Your task to perform on an android device: Search for vegetarian restaurants on Maps Image 0: 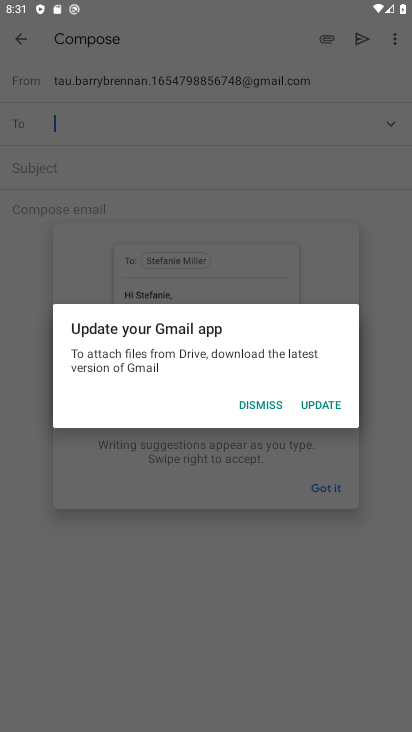
Step 0: press home button
Your task to perform on an android device: Search for vegetarian restaurants on Maps Image 1: 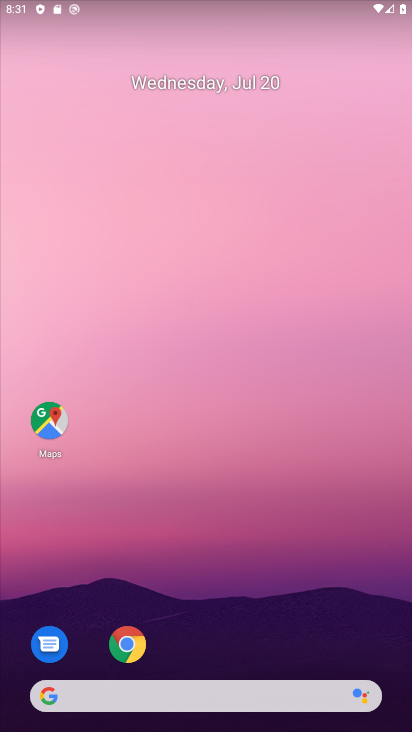
Step 1: drag from (318, 612) to (302, 382)
Your task to perform on an android device: Search for vegetarian restaurants on Maps Image 2: 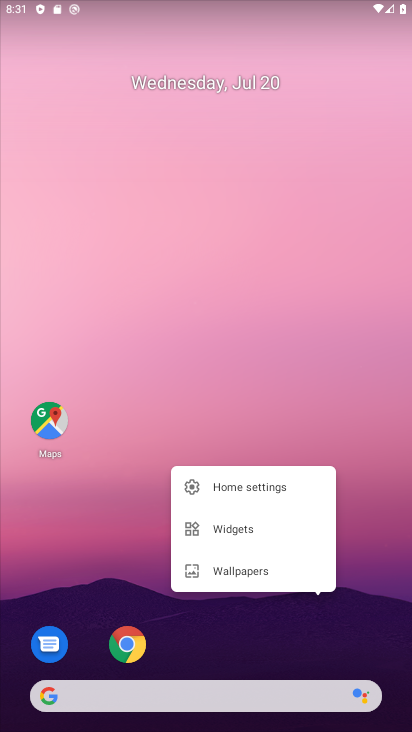
Step 2: click (302, 382)
Your task to perform on an android device: Search for vegetarian restaurants on Maps Image 3: 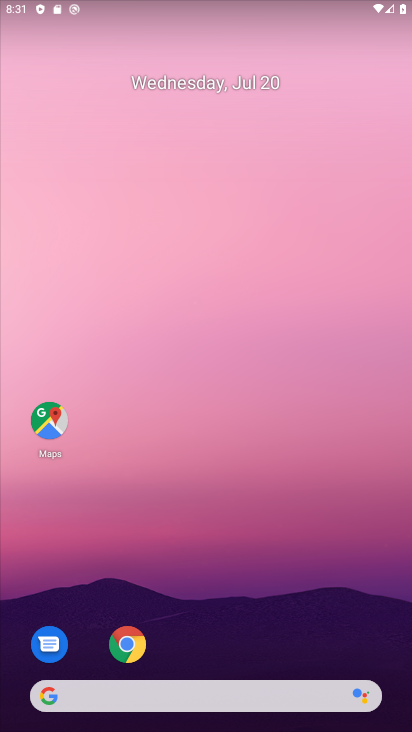
Step 3: drag from (312, 650) to (321, 278)
Your task to perform on an android device: Search for vegetarian restaurants on Maps Image 4: 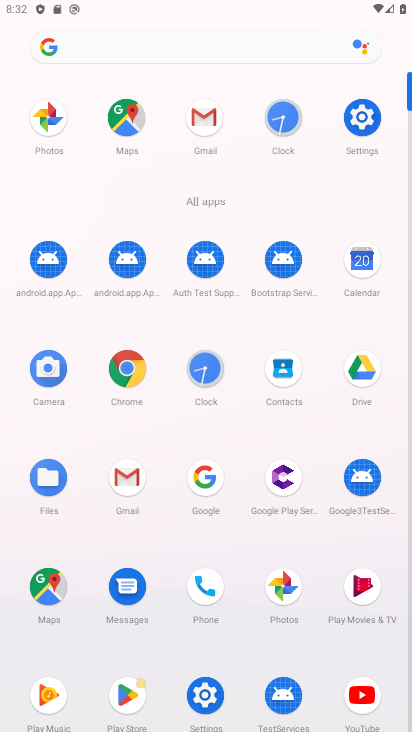
Step 4: click (44, 600)
Your task to perform on an android device: Search for vegetarian restaurants on Maps Image 5: 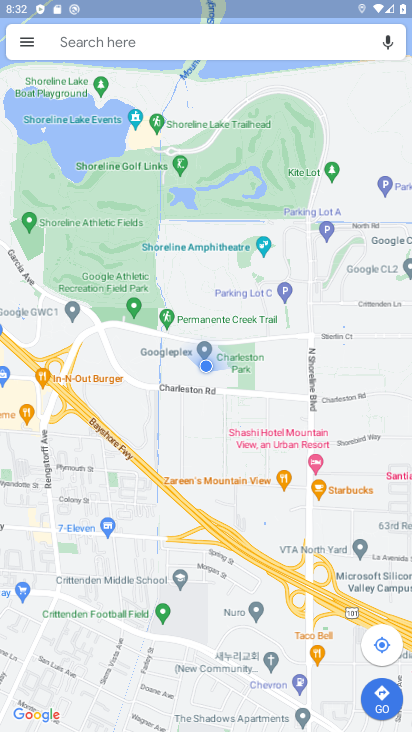
Step 5: click (94, 36)
Your task to perform on an android device: Search for vegetarian restaurants on Maps Image 6: 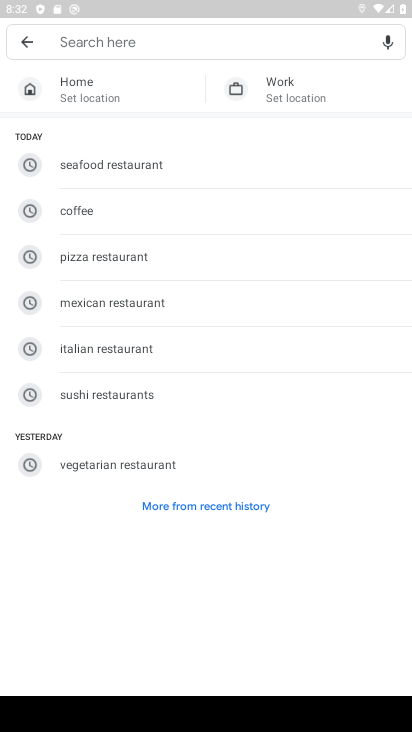
Step 6: click (130, 468)
Your task to perform on an android device: Search for vegetarian restaurants on Maps Image 7: 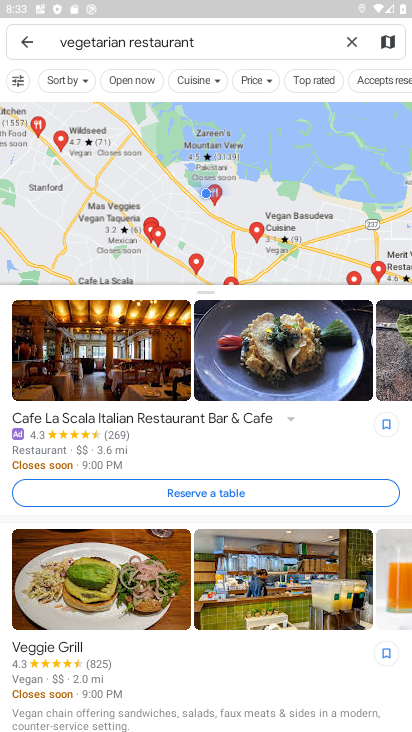
Step 7: task complete